Your task to perform on an android device: Open accessibility settings Image 0: 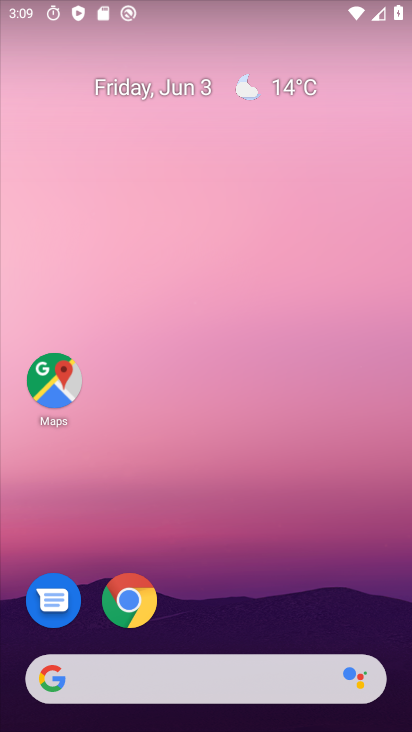
Step 0: drag from (229, 551) to (192, 0)
Your task to perform on an android device: Open accessibility settings Image 1: 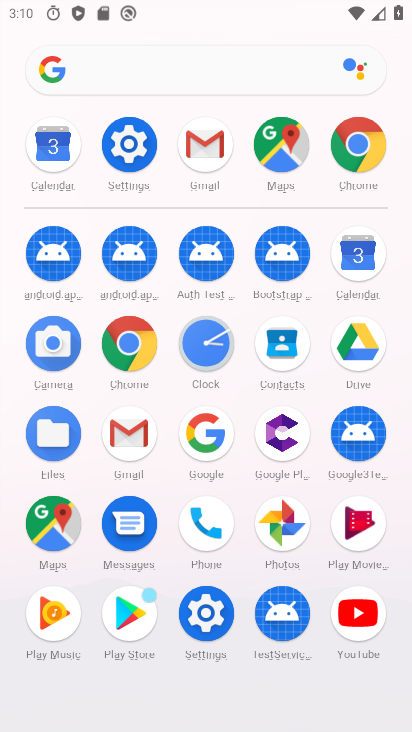
Step 1: click (129, 142)
Your task to perform on an android device: Open accessibility settings Image 2: 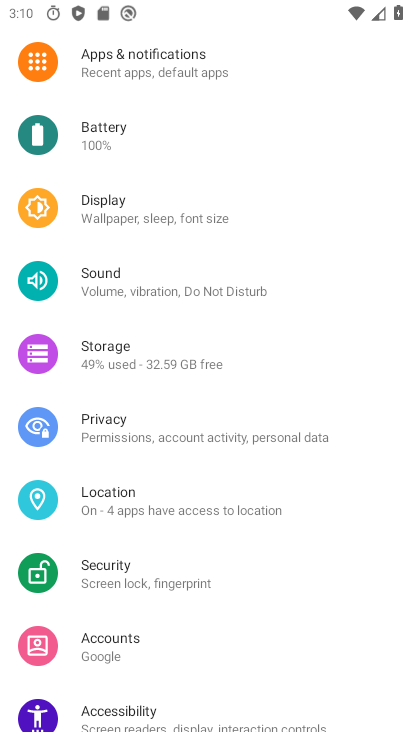
Step 2: drag from (271, 549) to (304, 95)
Your task to perform on an android device: Open accessibility settings Image 3: 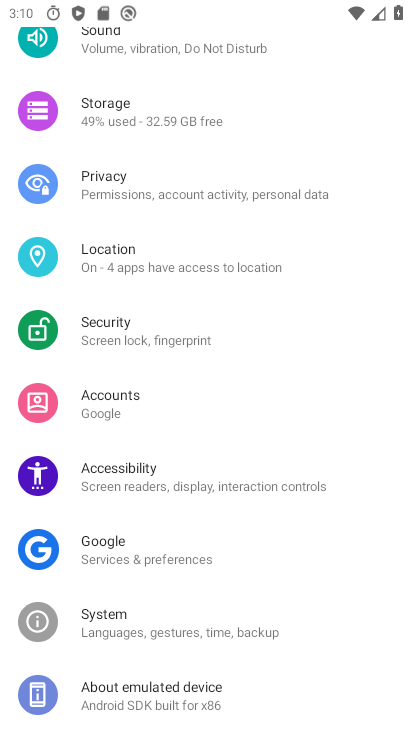
Step 3: drag from (230, 530) to (276, 109)
Your task to perform on an android device: Open accessibility settings Image 4: 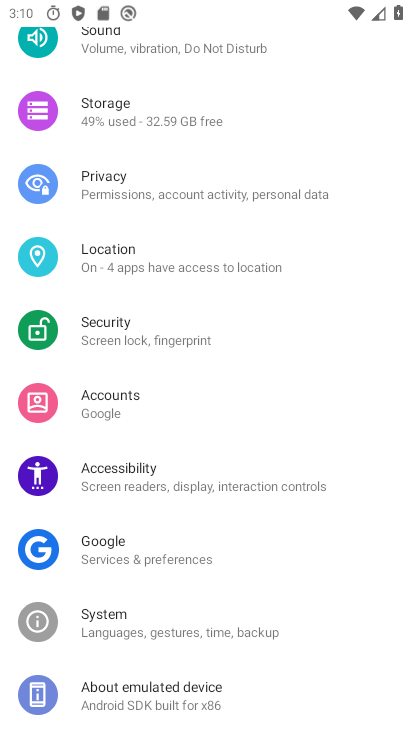
Step 4: click (133, 464)
Your task to perform on an android device: Open accessibility settings Image 5: 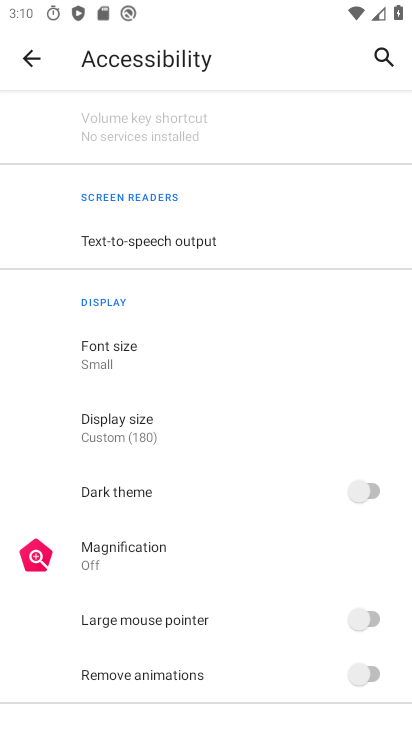
Step 5: task complete